Your task to perform on an android device: add a contact in the contacts app Image 0: 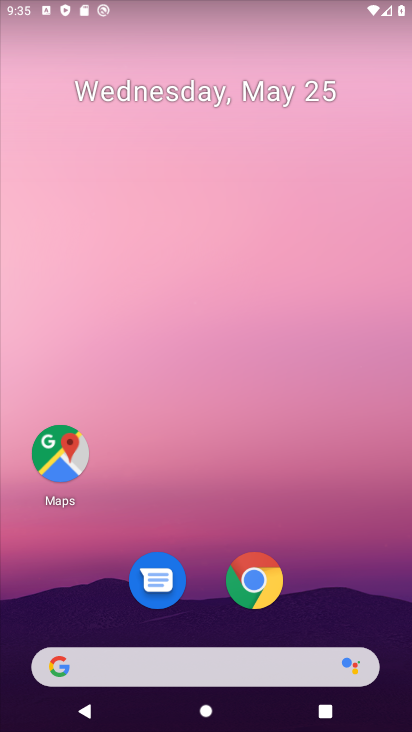
Step 0: press home button
Your task to perform on an android device: add a contact in the contacts app Image 1: 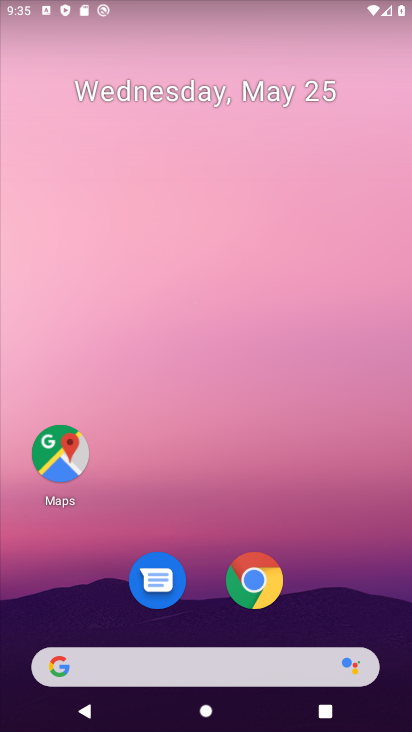
Step 1: drag from (66, 508) to (286, 119)
Your task to perform on an android device: add a contact in the contacts app Image 2: 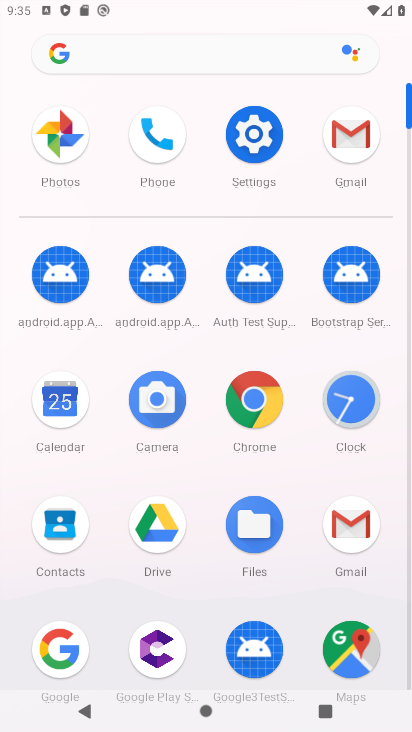
Step 2: click (163, 134)
Your task to perform on an android device: add a contact in the contacts app Image 3: 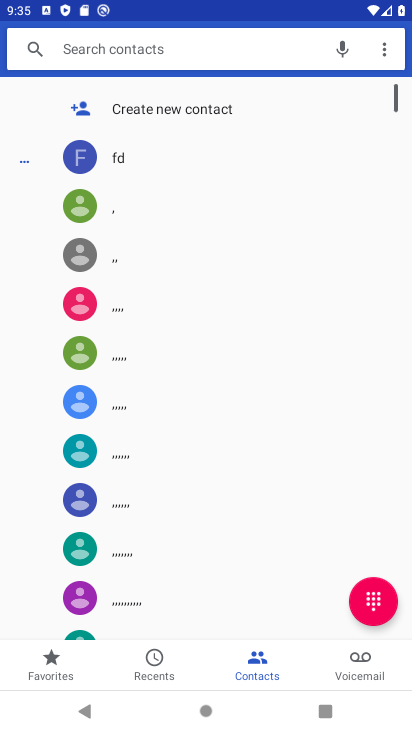
Step 3: click (181, 103)
Your task to perform on an android device: add a contact in the contacts app Image 4: 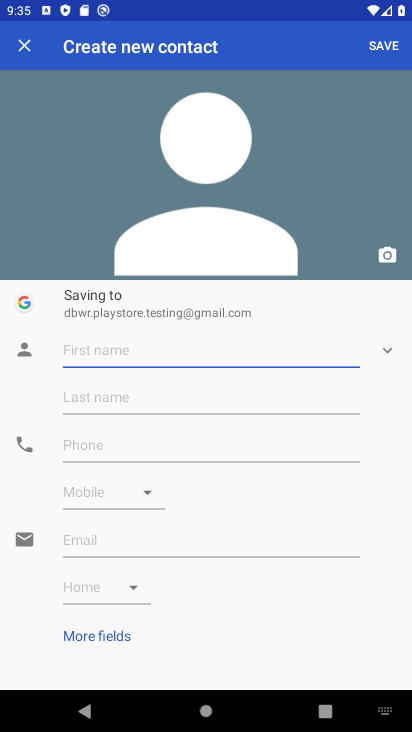
Step 4: click (199, 344)
Your task to perform on an android device: add a contact in the contacts app Image 5: 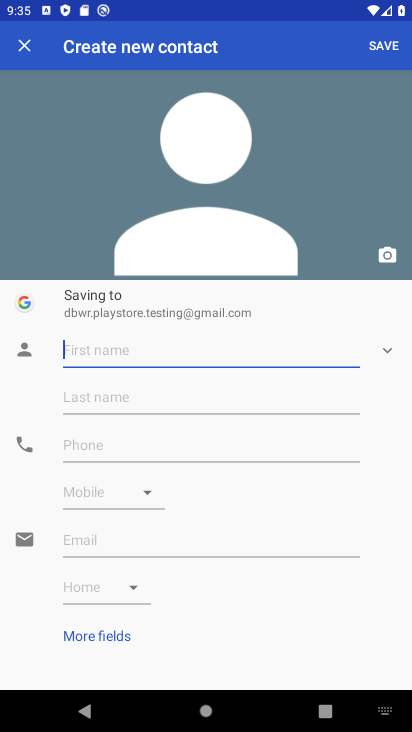
Step 5: type "bgfgb"
Your task to perform on an android device: add a contact in the contacts app Image 6: 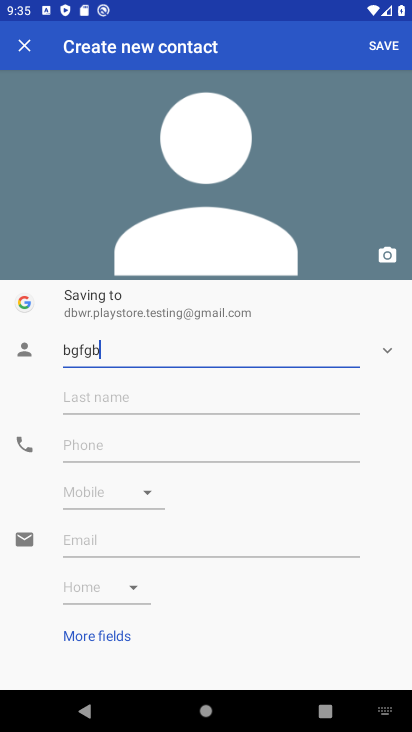
Step 6: type ""
Your task to perform on an android device: add a contact in the contacts app Image 7: 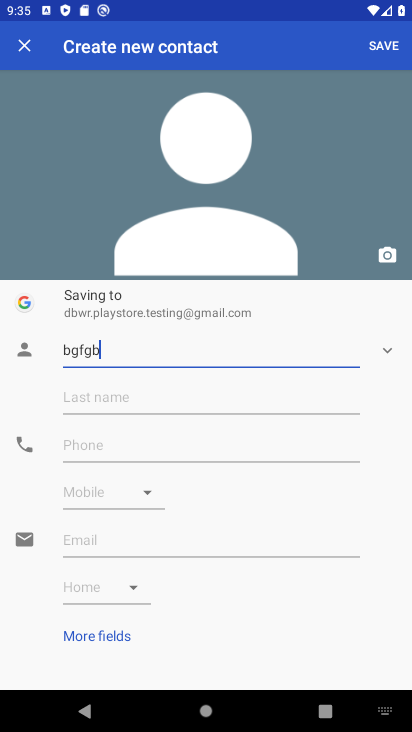
Step 7: click (385, 39)
Your task to perform on an android device: add a contact in the contacts app Image 8: 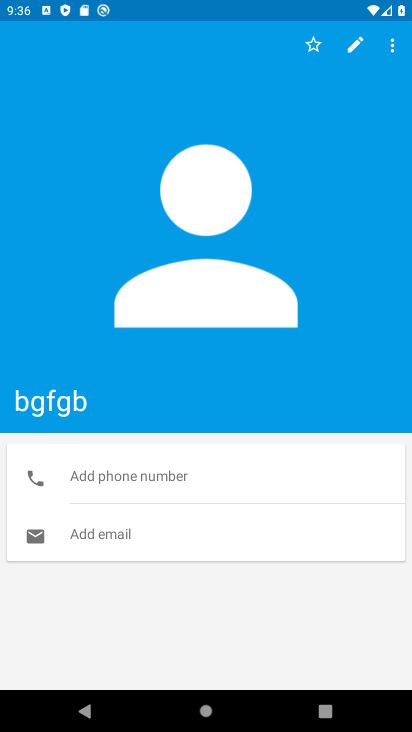
Step 8: task complete